Your task to perform on an android device: Open Google Chrome and click the shortcut for Amazon.com Image 0: 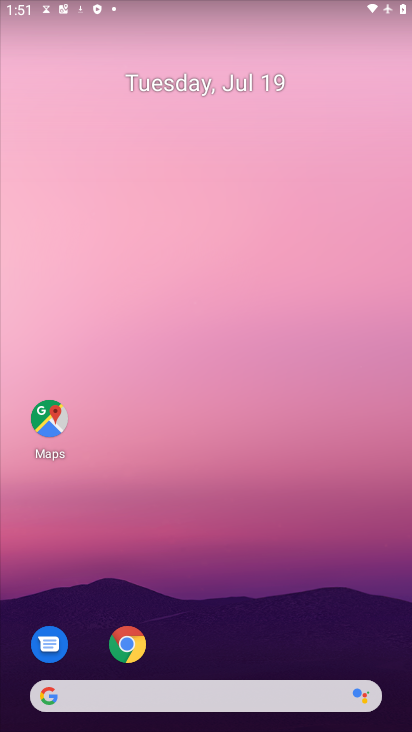
Step 0: drag from (207, 550) to (162, 210)
Your task to perform on an android device: Open Google Chrome and click the shortcut for Amazon.com Image 1: 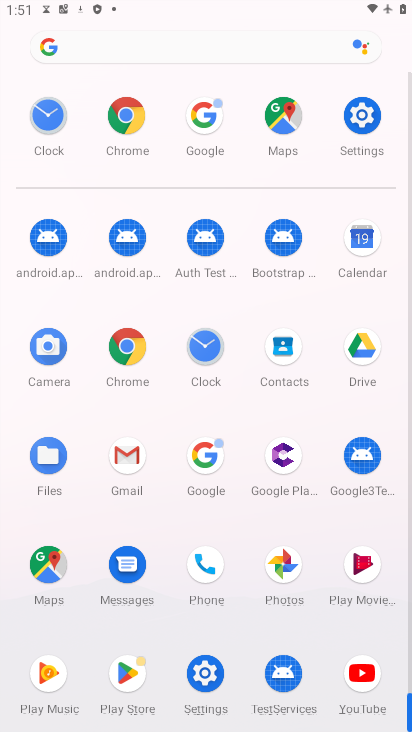
Step 1: click (126, 359)
Your task to perform on an android device: Open Google Chrome and click the shortcut for Amazon.com Image 2: 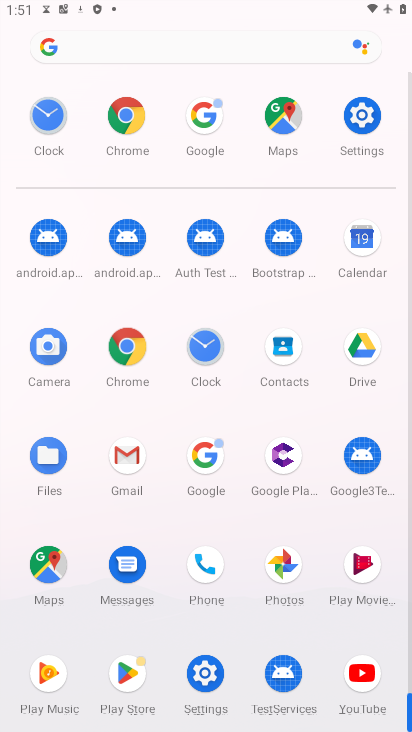
Step 2: click (126, 360)
Your task to perform on an android device: Open Google Chrome and click the shortcut for Amazon.com Image 3: 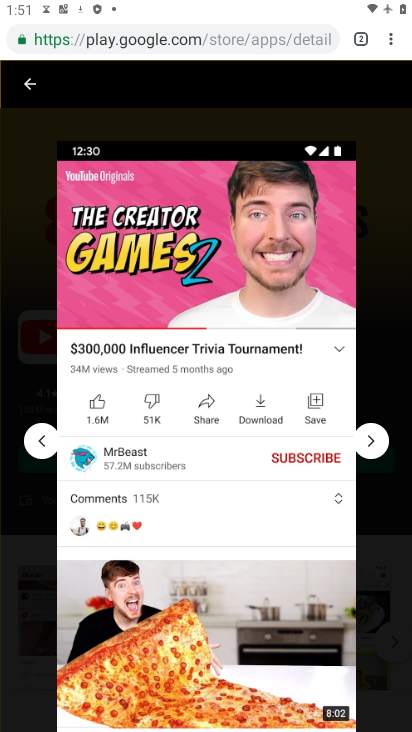
Step 3: drag from (393, 37) to (251, 75)
Your task to perform on an android device: Open Google Chrome and click the shortcut for Amazon.com Image 4: 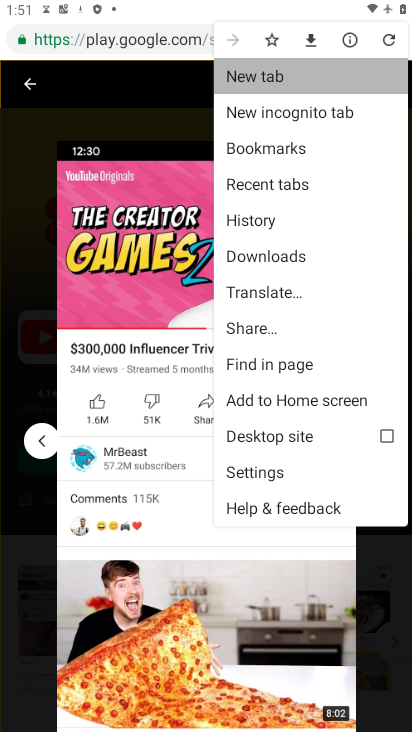
Step 4: click (251, 75)
Your task to perform on an android device: Open Google Chrome and click the shortcut for Amazon.com Image 5: 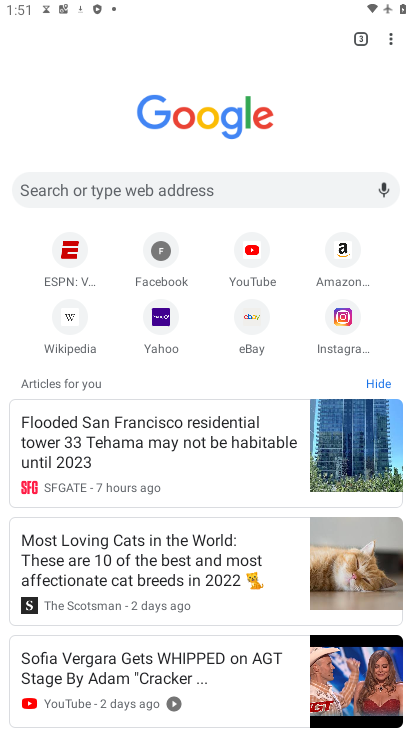
Step 5: click (346, 258)
Your task to perform on an android device: Open Google Chrome and click the shortcut for Amazon.com Image 6: 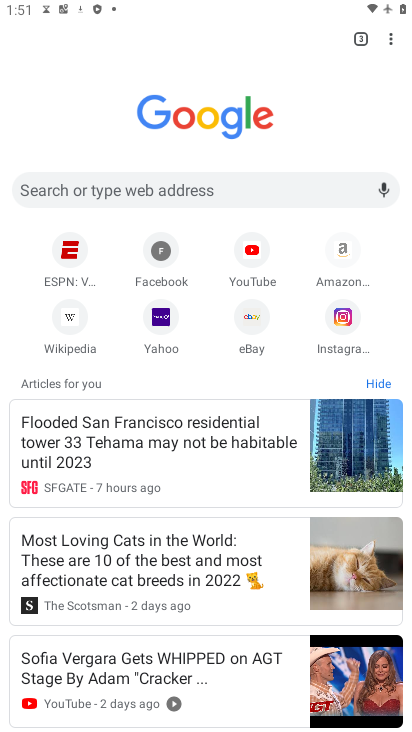
Step 6: click (342, 257)
Your task to perform on an android device: Open Google Chrome and click the shortcut for Amazon.com Image 7: 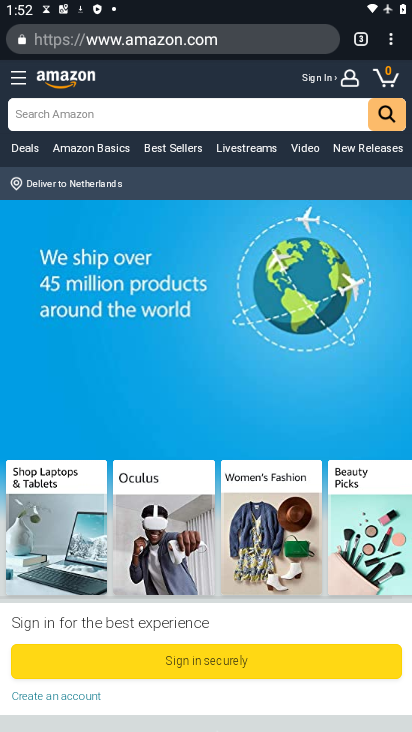
Step 7: task complete